Your task to perform on an android device: turn off sleep mode Image 0: 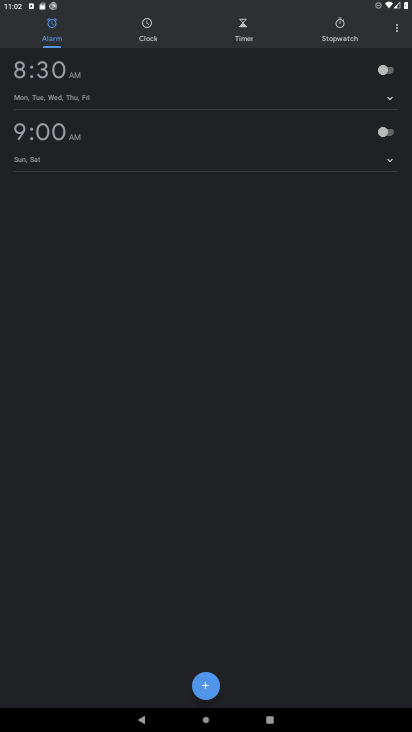
Step 0: press home button
Your task to perform on an android device: turn off sleep mode Image 1: 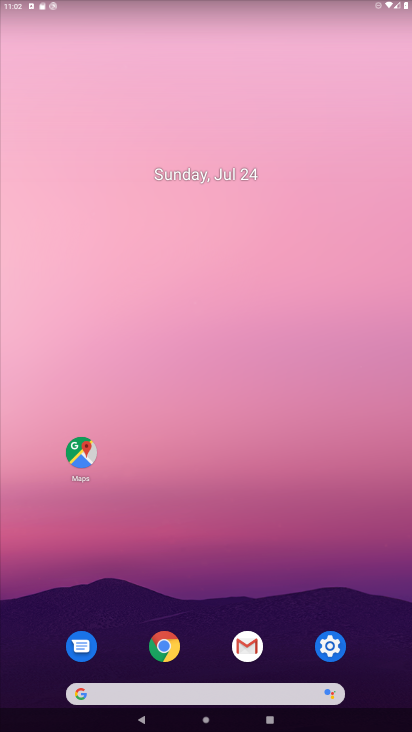
Step 1: click (330, 647)
Your task to perform on an android device: turn off sleep mode Image 2: 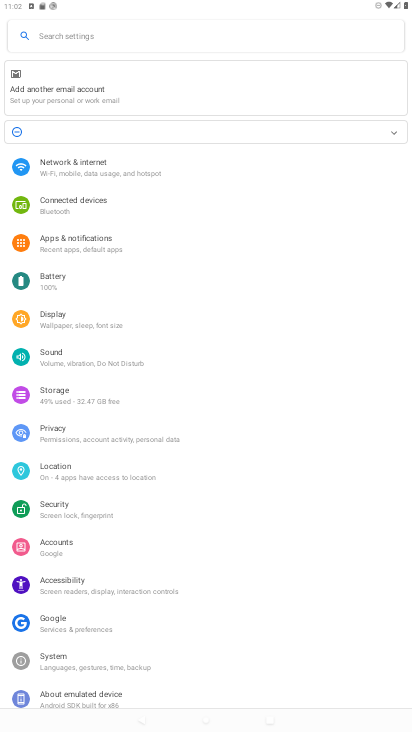
Step 2: click (118, 37)
Your task to perform on an android device: turn off sleep mode Image 3: 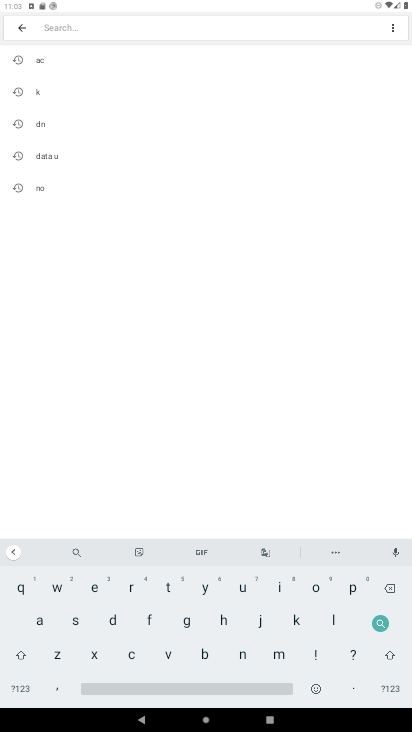
Step 3: click (72, 619)
Your task to perform on an android device: turn off sleep mode Image 4: 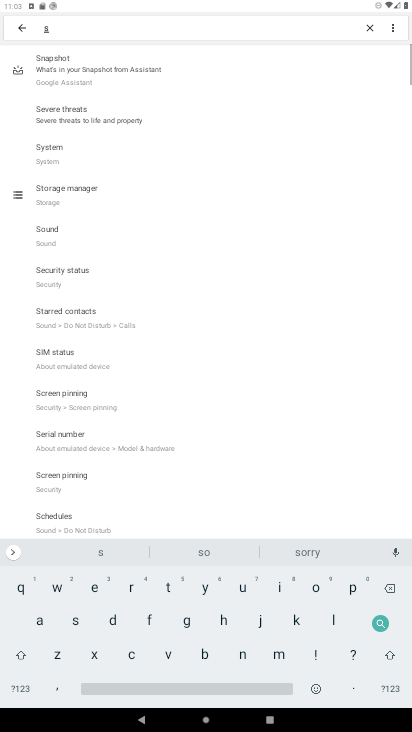
Step 4: click (334, 620)
Your task to perform on an android device: turn off sleep mode Image 5: 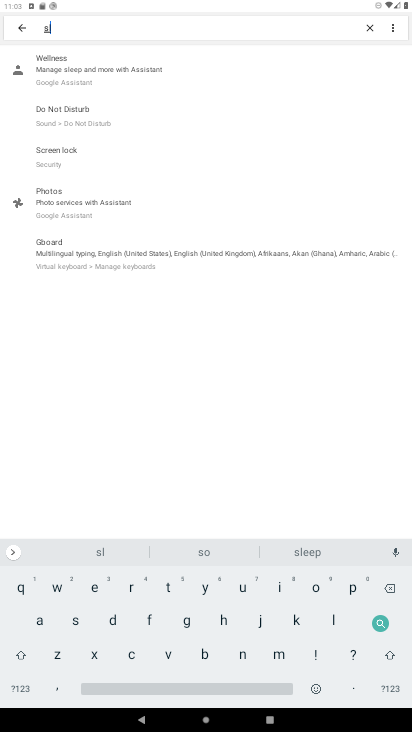
Step 5: click (93, 594)
Your task to perform on an android device: turn off sleep mode Image 6: 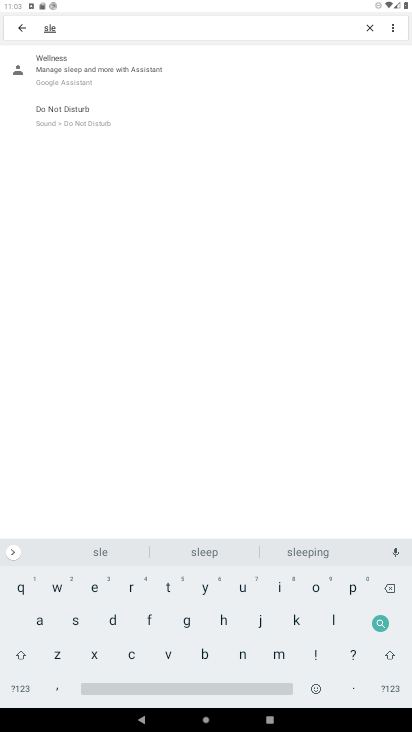
Step 6: click (77, 104)
Your task to perform on an android device: turn off sleep mode Image 7: 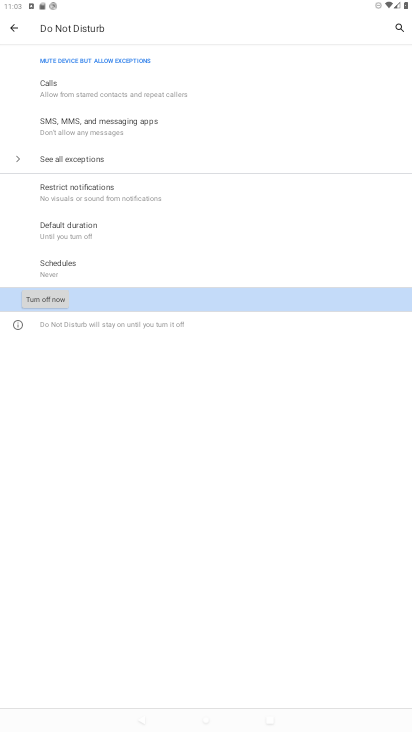
Step 7: click (52, 291)
Your task to perform on an android device: turn off sleep mode Image 8: 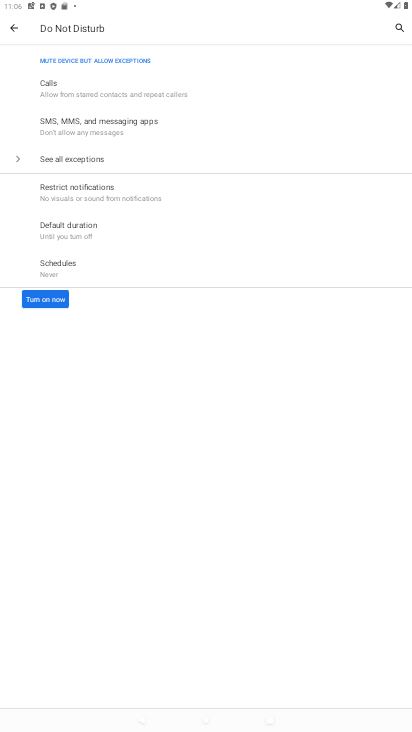
Step 8: task complete